Your task to perform on an android device: open app "Lyft - Rideshare, Bikes, Scooters & Transit" (install if not already installed) Image 0: 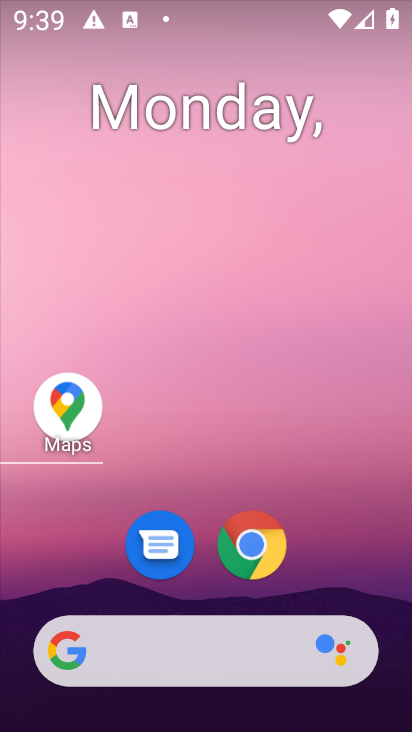
Step 0: press home button
Your task to perform on an android device: open app "Lyft - Rideshare, Bikes, Scooters & Transit" (install if not already installed) Image 1: 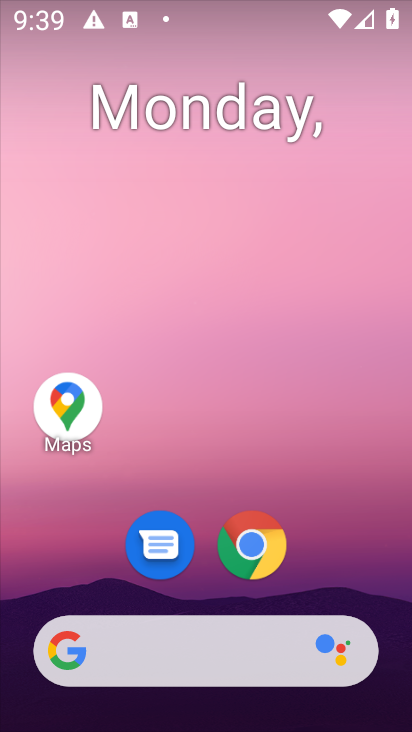
Step 1: drag from (361, 580) to (344, 128)
Your task to perform on an android device: open app "Lyft - Rideshare, Bikes, Scooters & Transit" (install if not already installed) Image 2: 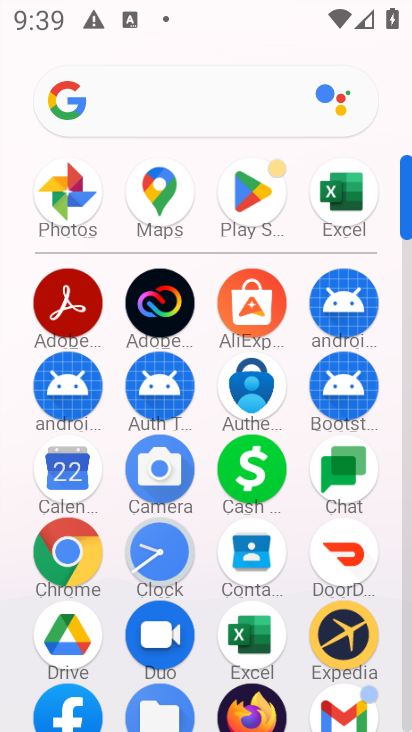
Step 2: click (244, 210)
Your task to perform on an android device: open app "Lyft - Rideshare, Bikes, Scooters & Transit" (install if not already installed) Image 3: 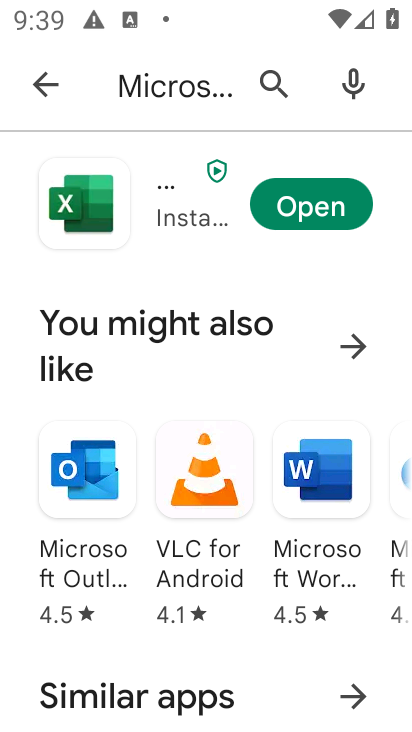
Step 3: press back button
Your task to perform on an android device: open app "Lyft - Rideshare, Bikes, Scooters & Transit" (install if not already installed) Image 4: 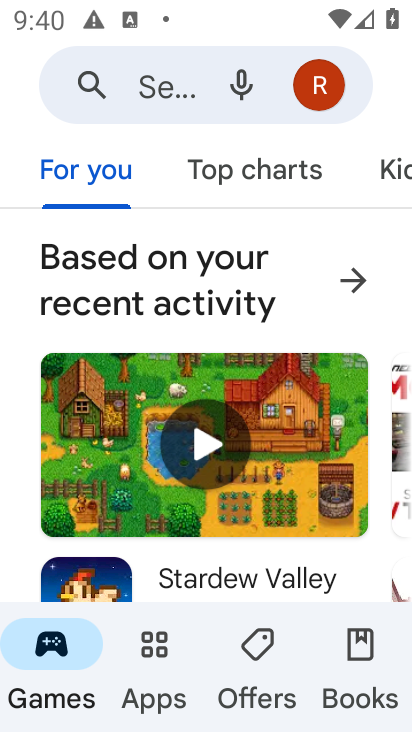
Step 4: click (175, 84)
Your task to perform on an android device: open app "Lyft - Rideshare, Bikes, Scooters & Transit" (install if not already installed) Image 5: 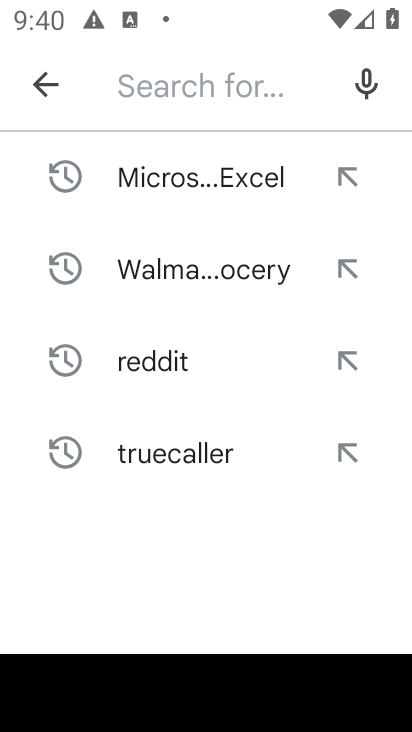
Step 5: type "Lyft - Rideshare, Bikes, Scooters & Transit"
Your task to perform on an android device: open app "Lyft - Rideshare, Bikes, Scooters & Transit" (install if not already installed) Image 6: 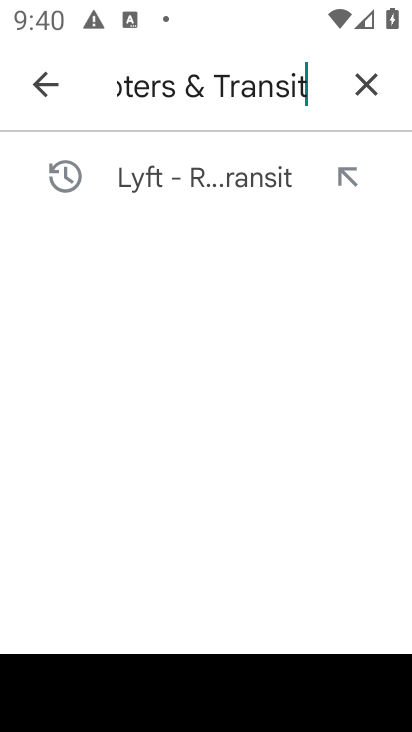
Step 6: press enter
Your task to perform on an android device: open app "Lyft - Rideshare, Bikes, Scooters & Transit" (install if not already installed) Image 7: 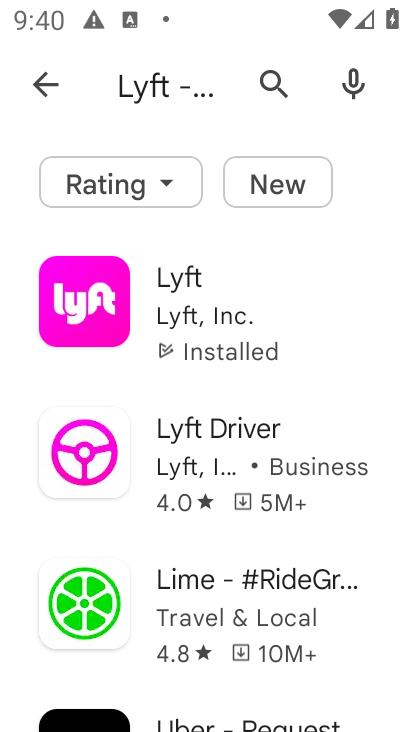
Step 7: click (204, 311)
Your task to perform on an android device: open app "Lyft - Rideshare, Bikes, Scooters & Transit" (install if not already installed) Image 8: 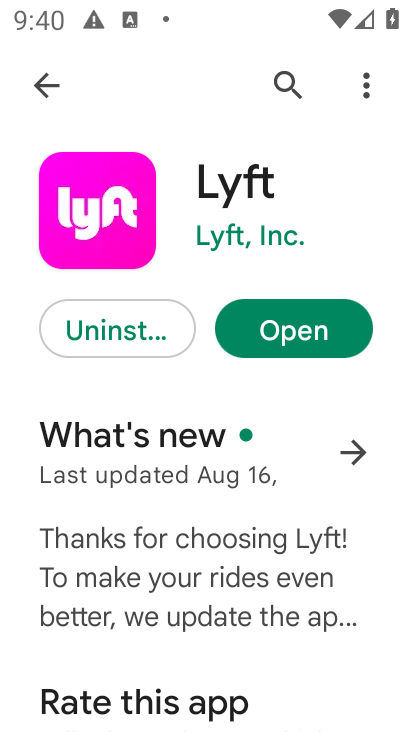
Step 8: click (306, 337)
Your task to perform on an android device: open app "Lyft - Rideshare, Bikes, Scooters & Transit" (install if not already installed) Image 9: 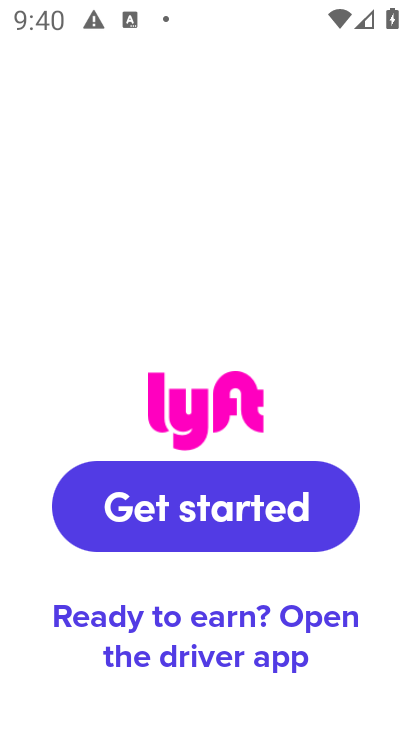
Step 9: task complete